Your task to perform on an android device: Open Youtube and go to "Your channel" Image 0: 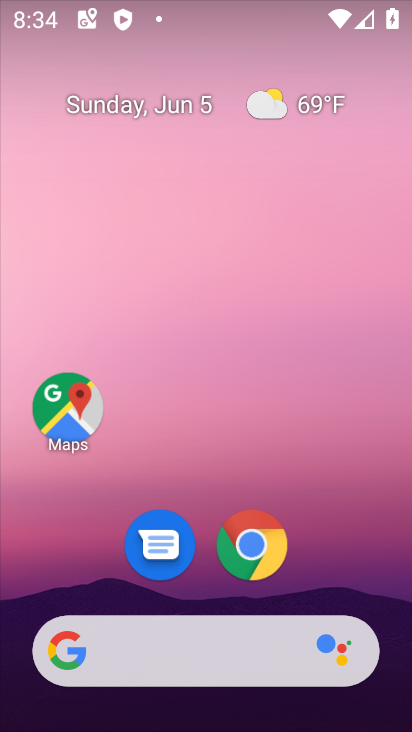
Step 0: drag from (362, 518) to (373, 709)
Your task to perform on an android device: Open Youtube and go to "Your channel" Image 1: 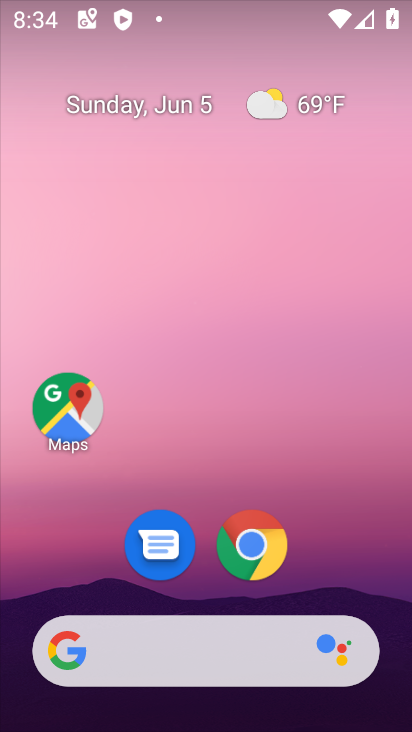
Step 1: drag from (346, 587) to (347, 193)
Your task to perform on an android device: Open Youtube and go to "Your channel" Image 2: 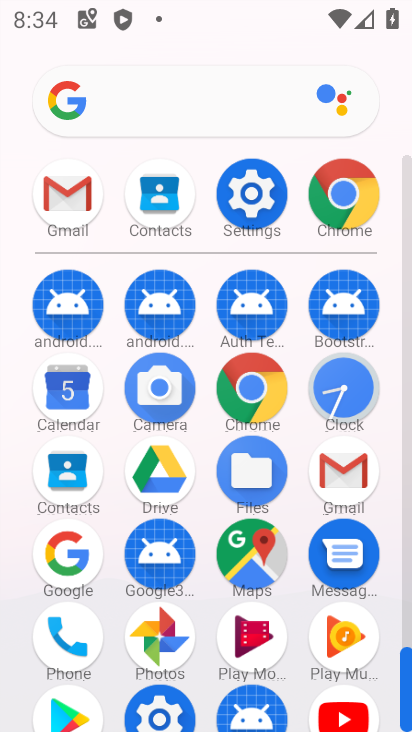
Step 2: drag from (296, 596) to (295, 422)
Your task to perform on an android device: Open Youtube and go to "Your channel" Image 3: 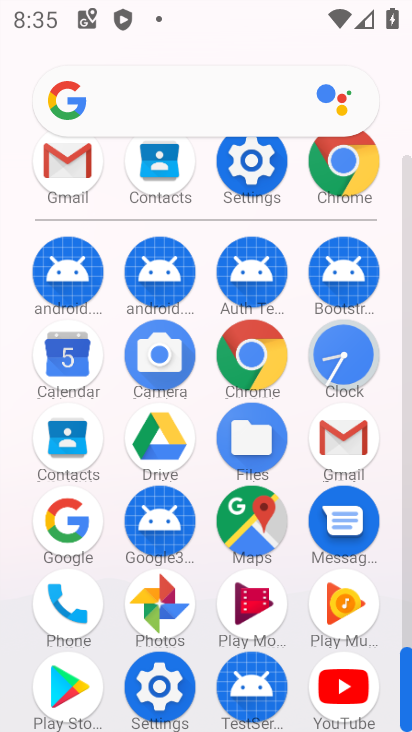
Step 3: click (353, 694)
Your task to perform on an android device: Open Youtube and go to "Your channel" Image 4: 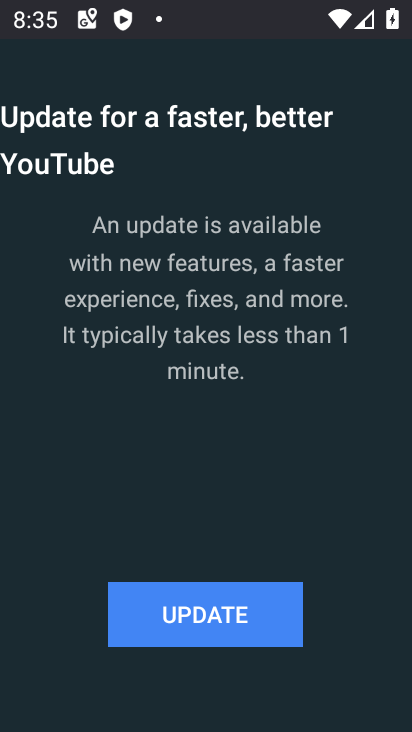
Step 4: click (233, 616)
Your task to perform on an android device: Open Youtube and go to "Your channel" Image 5: 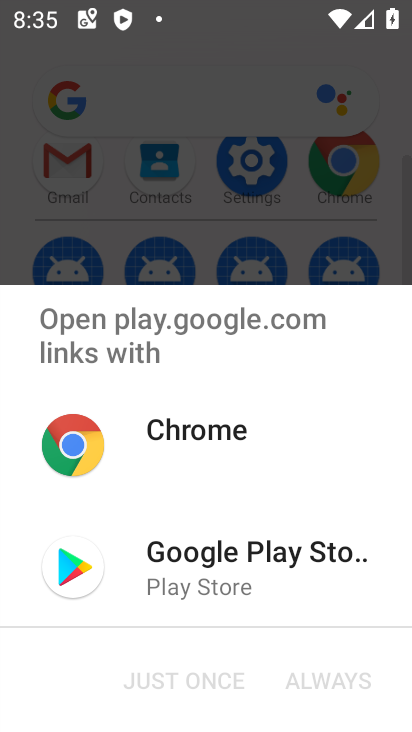
Step 5: click (208, 566)
Your task to perform on an android device: Open Youtube and go to "Your channel" Image 6: 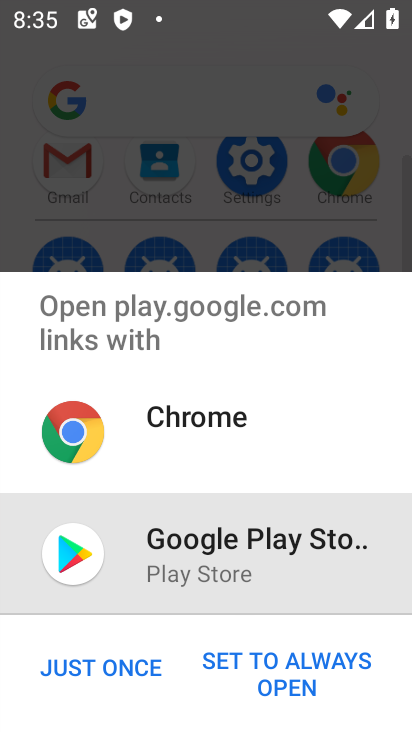
Step 6: click (139, 663)
Your task to perform on an android device: Open Youtube and go to "Your channel" Image 7: 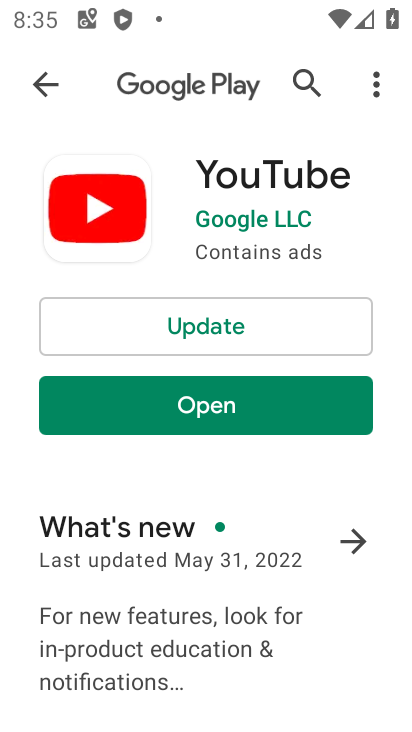
Step 7: click (206, 322)
Your task to perform on an android device: Open Youtube and go to "Your channel" Image 8: 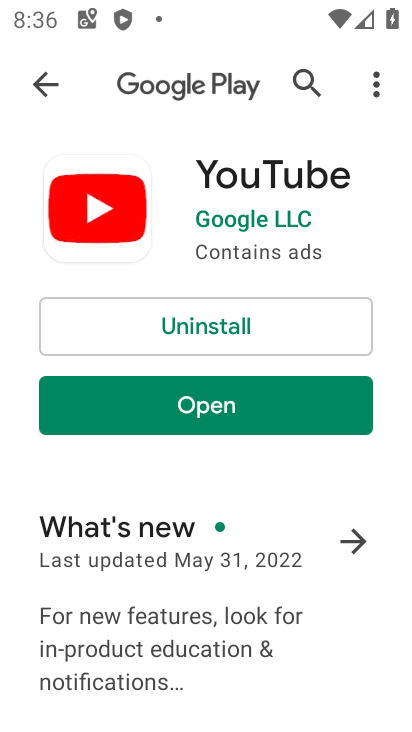
Step 8: click (273, 418)
Your task to perform on an android device: Open Youtube and go to "Your channel" Image 9: 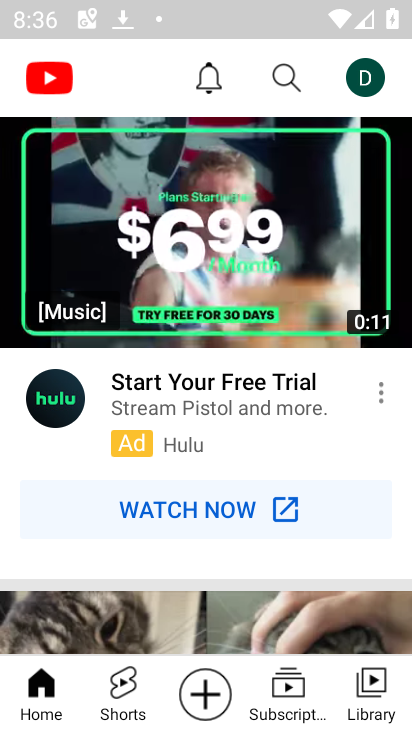
Step 9: click (379, 77)
Your task to perform on an android device: Open Youtube and go to "Your channel" Image 10: 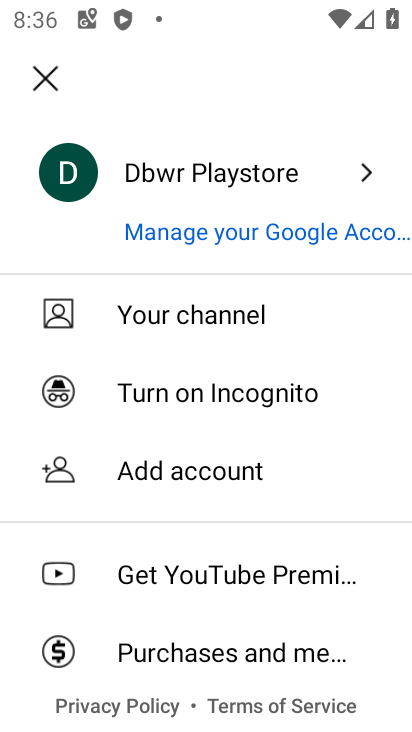
Step 10: click (245, 338)
Your task to perform on an android device: Open Youtube and go to "Your channel" Image 11: 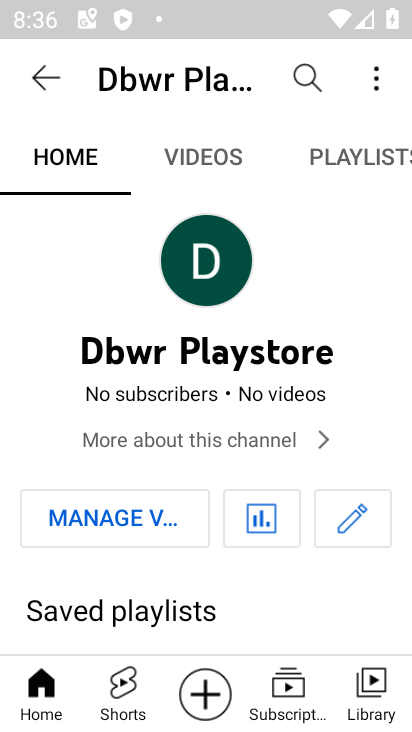
Step 11: task complete